Your task to perform on an android device: turn off airplane mode Image 0: 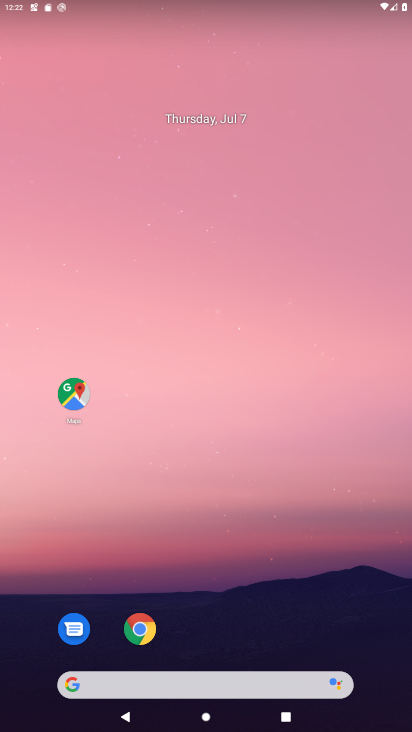
Step 0: drag from (283, 632) to (226, 3)
Your task to perform on an android device: turn off airplane mode Image 1: 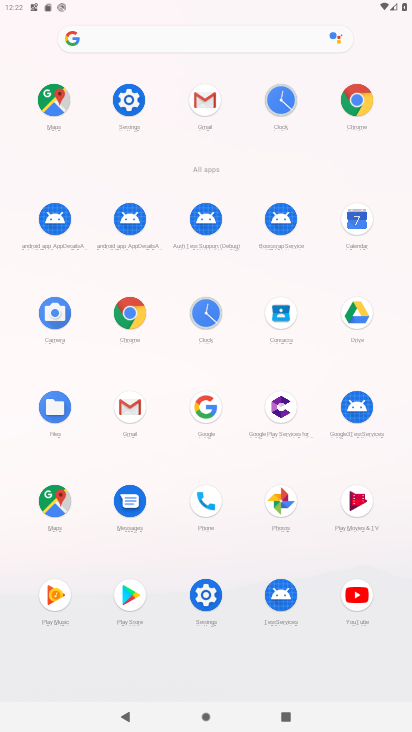
Step 1: click (121, 100)
Your task to perform on an android device: turn off airplane mode Image 2: 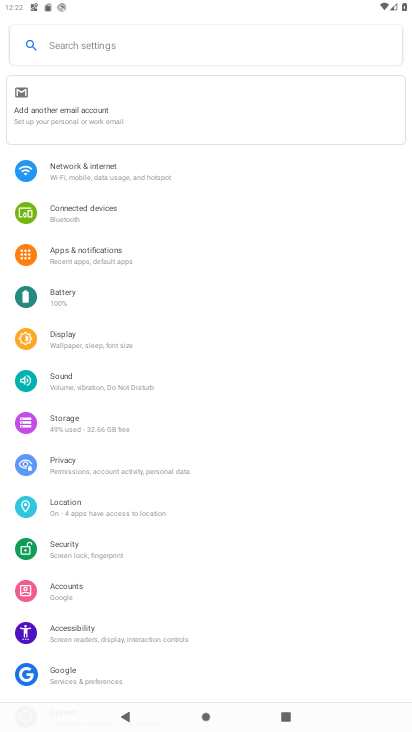
Step 2: click (127, 160)
Your task to perform on an android device: turn off airplane mode Image 3: 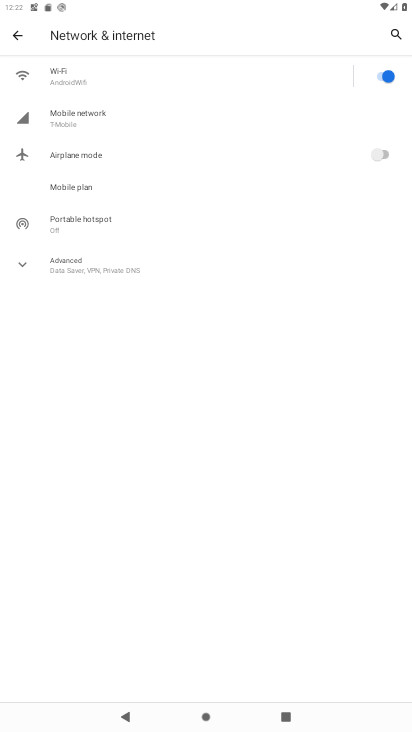
Step 3: task complete